Your task to perform on an android device: Search for Mexican restaurants on Maps Image 0: 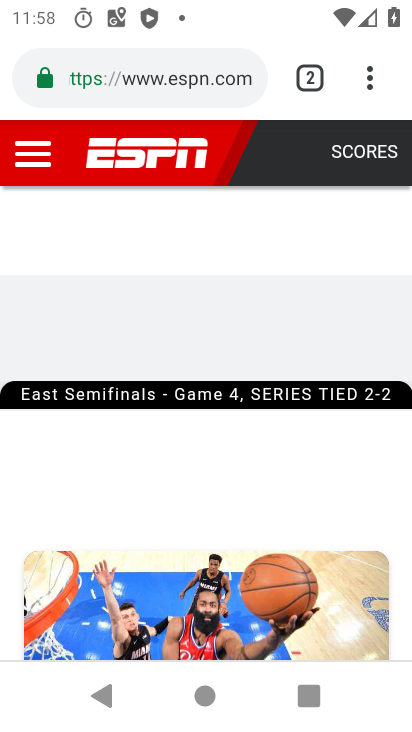
Step 0: press home button
Your task to perform on an android device: Search for Mexican restaurants on Maps Image 1: 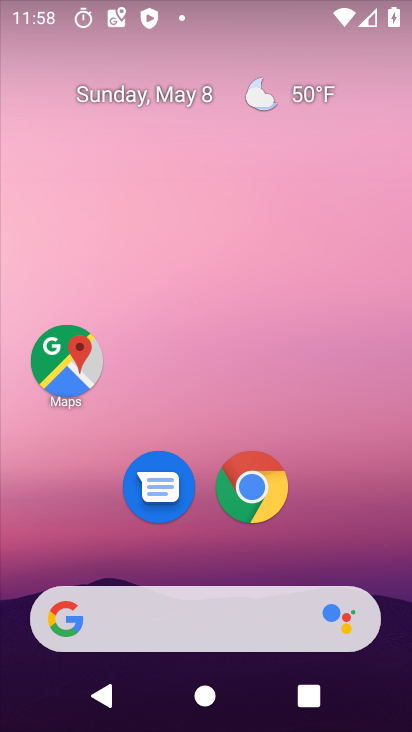
Step 1: click (69, 376)
Your task to perform on an android device: Search for Mexican restaurants on Maps Image 2: 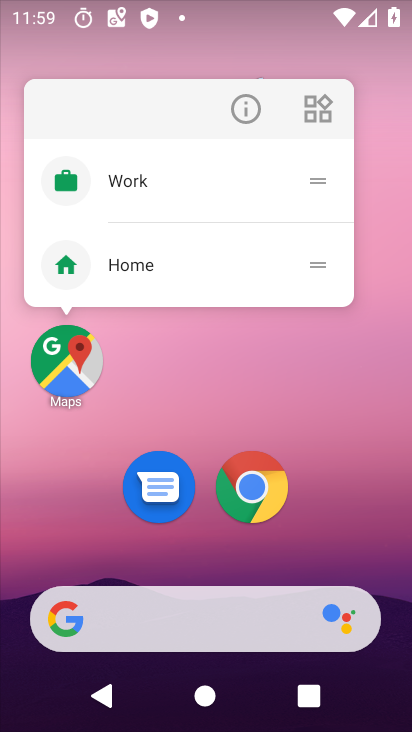
Step 2: click (81, 355)
Your task to perform on an android device: Search for Mexican restaurants on Maps Image 3: 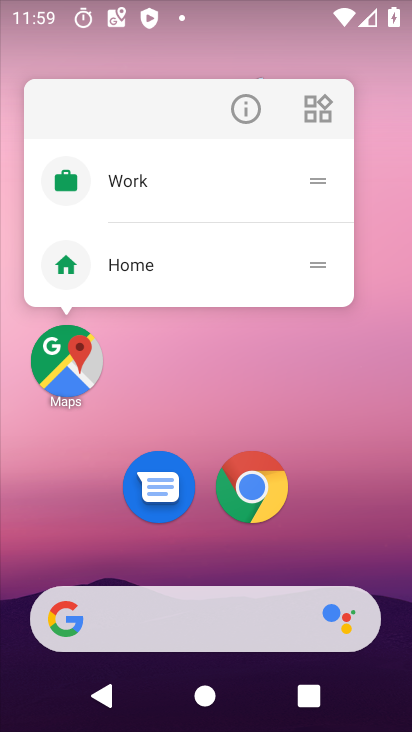
Step 3: click (82, 379)
Your task to perform on an android device: Search for Mexican restaurants on Maps Image 4: 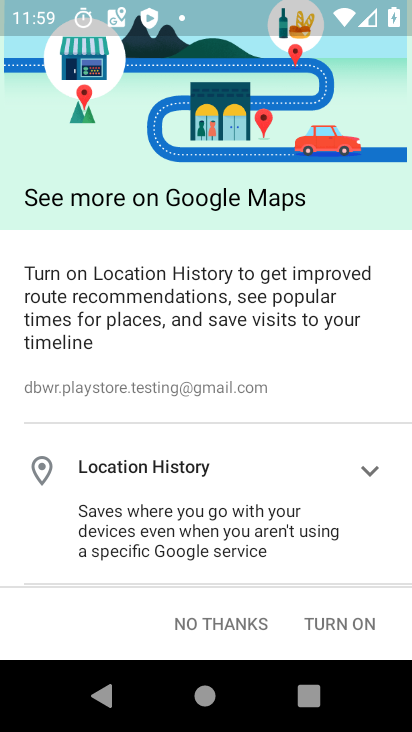
Step 4: press back button
Your task to perform on an android device: Search for Mexican restaurants on Maps Image 5: 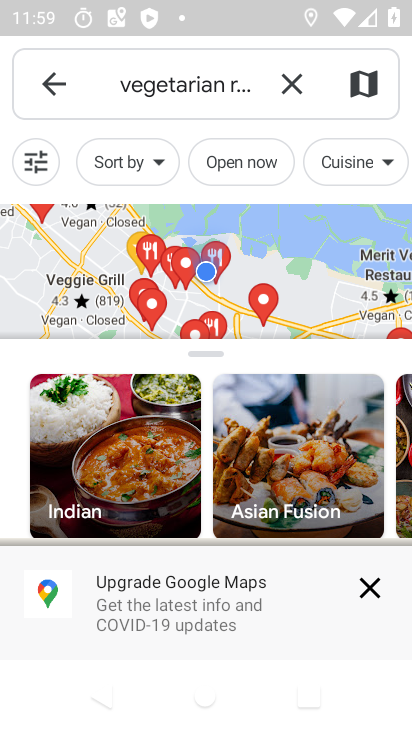
Step 5: click (302, 93)
Your task to perform on an android device: Search for Mexican restaurants on Maps Image 6: 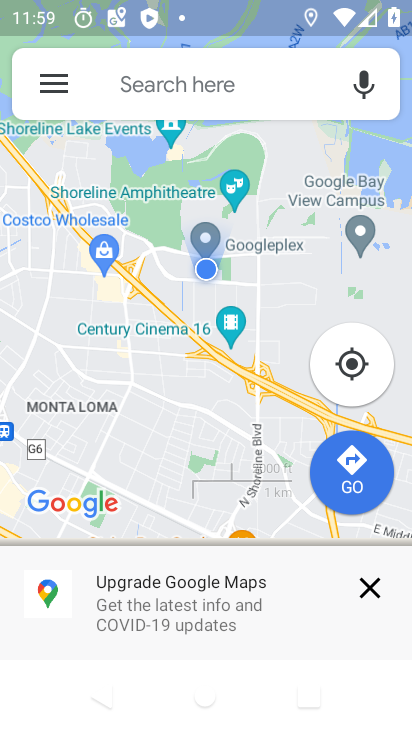
Step 6: click (188, 72)
Your task to perform on an android device: Search for Mexican restaurants on Maps Image 7: 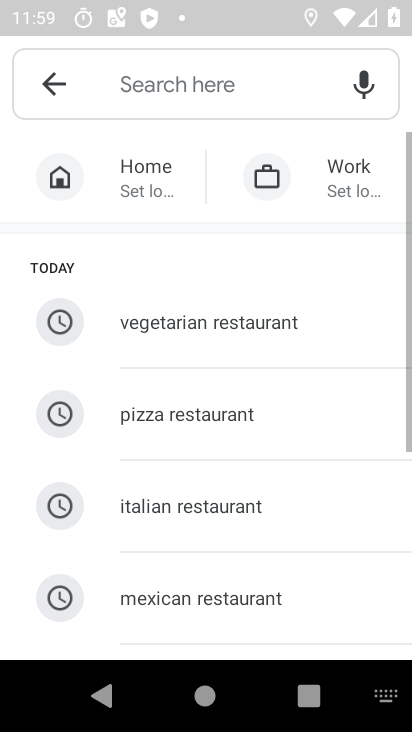
Step 7: click (201, 595)
Your task to perform on an android device: Search for Mexican restaurants on Maps Image 8: 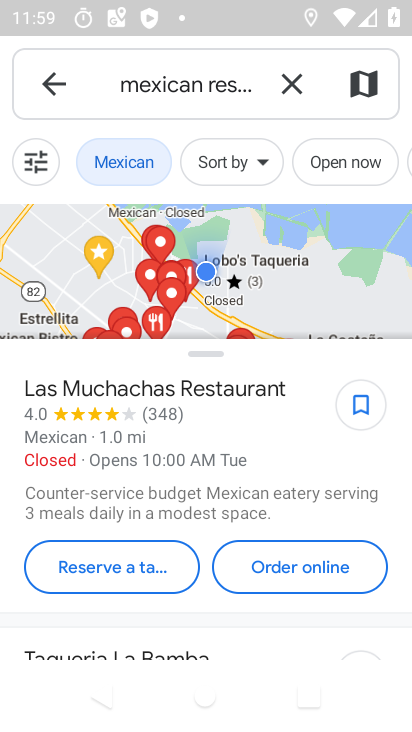
Step 8: task complete